Your task to perform on an android device: turn off translation in the chrome app Image 0: 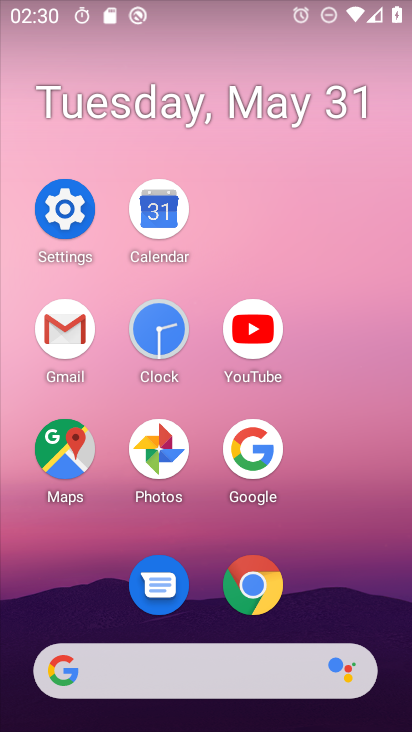
Step 0: click (251, 590)
Your task to perform on an android device: turn off translation in the chrome app Image 1: 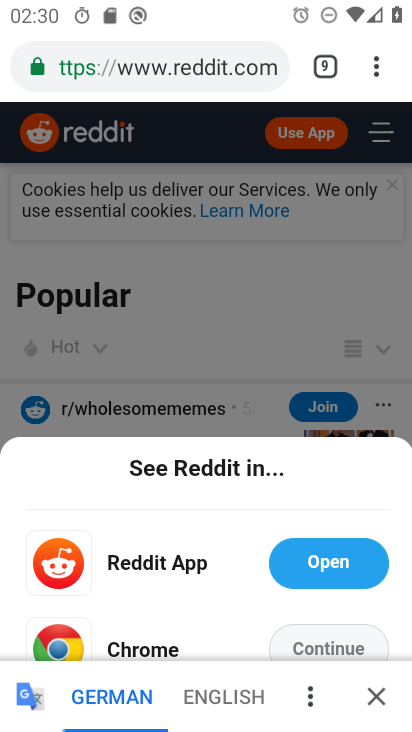
Step 1: click (377, 63)
Your task to perform on an android device: turn off translation in the chrome app Image 2: 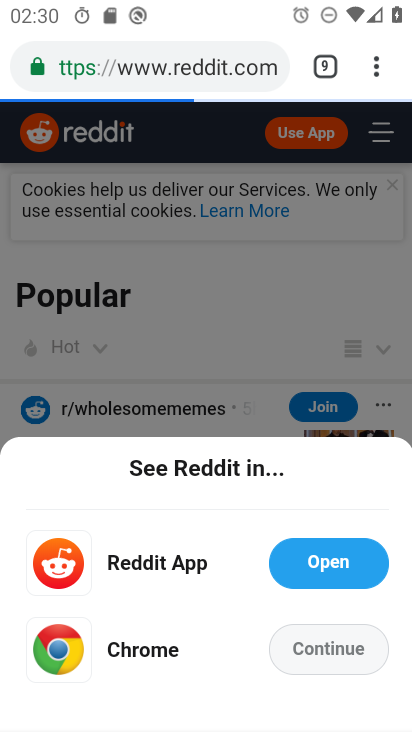
Step 2: click (375, 63)
Your task to perform on an android device: turn off translation in the chrome app Image 3: 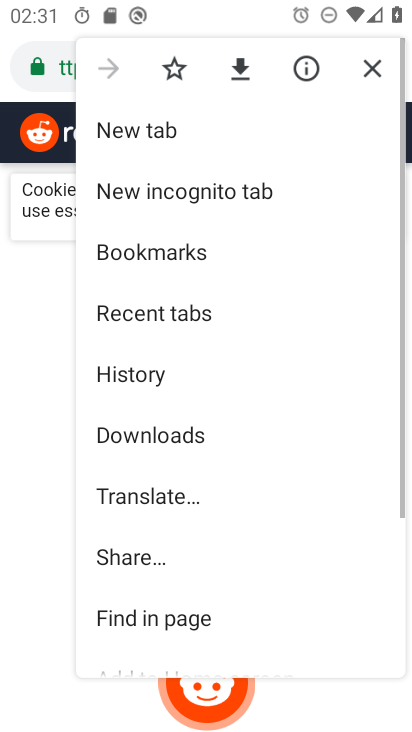
Step 3: drag from (255, 498) to (213, 207)
Your task to perform on an android device: turn off translation in the chrome app Image 4: 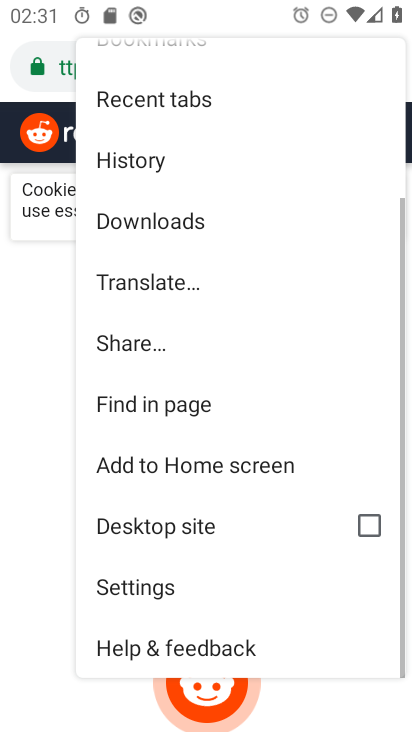
Step 4: click (163, 580)
Your task to perform on an android device: turn off translation in the chrome app Image 5: 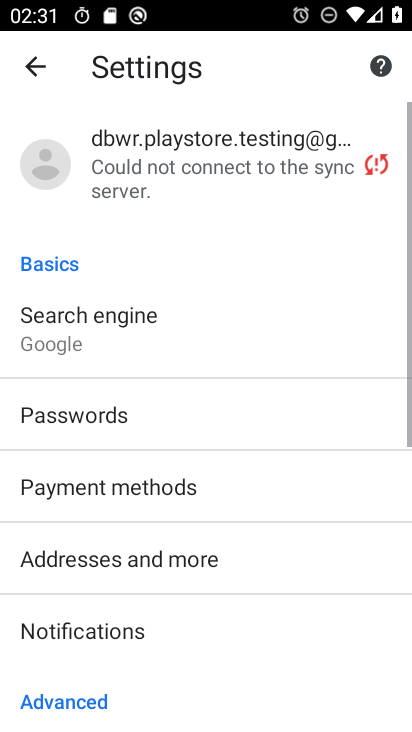
Step 5: drag from (168, 528) to (187, 179)
Your task to perform on an android device: turn off translation in the chrome app Image 6: 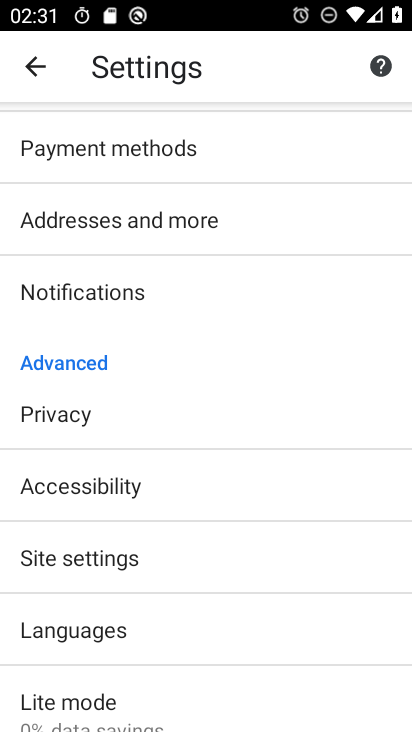
Step 6: click (184, 629)
Your task to perform on an android device: turn off translation in the chrome app Image 7: 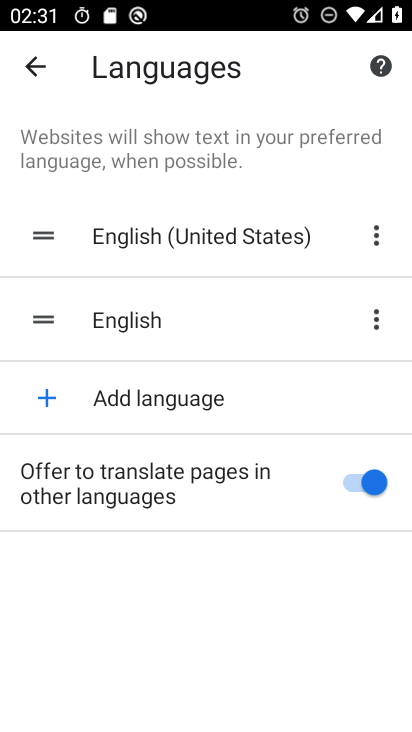
Step 7: click (375, 479)
Your task to perform on an android device: turn off translation in the chrome app Image 8: 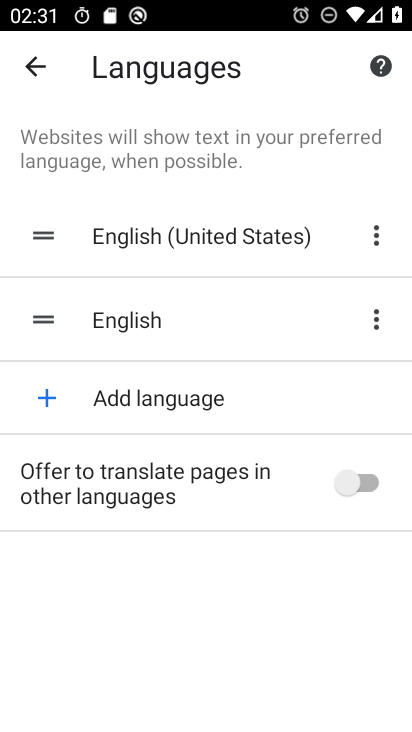
Step 8: task complete